Your task to perform on an android device: turn on improve location accuracy Image 0: 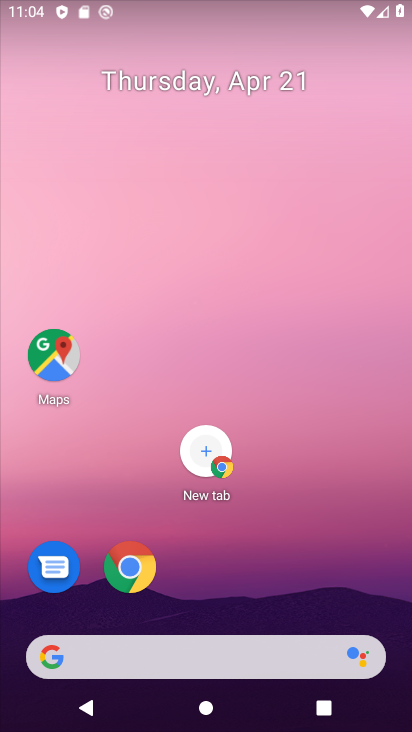
Step 0: drag from (214, 613) to (213, 64)
Your task to perform on an android device: turn on improve location accuracy Image 1: 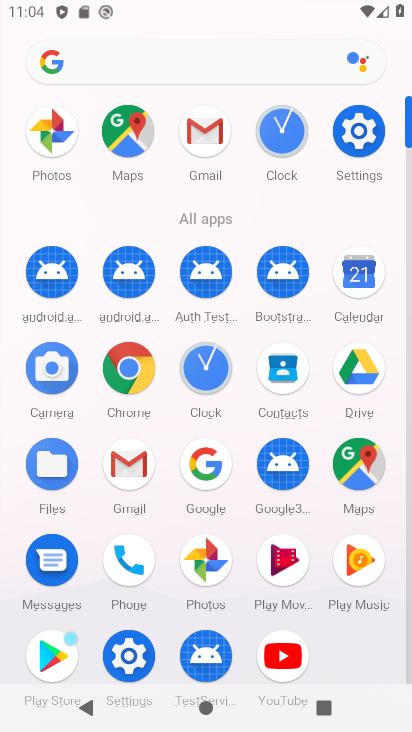
Step 1: click (350, 147)
Your task to perform on an android device: turn on improve location accuracy Image 2: 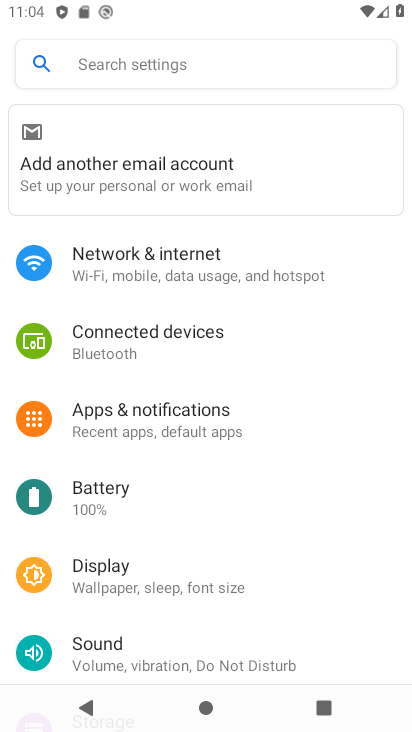
Step 2: drag from (77, 633) to (184, 229)
Your task to perform on an android device: turn on improve location accuracy Image 3: 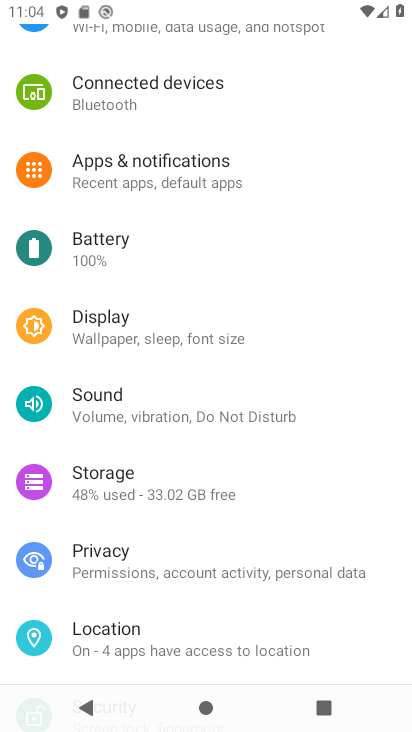
Step 3: click (38, 636)
Your task to perform on an android device: turn on improve location accuracy Image 4: 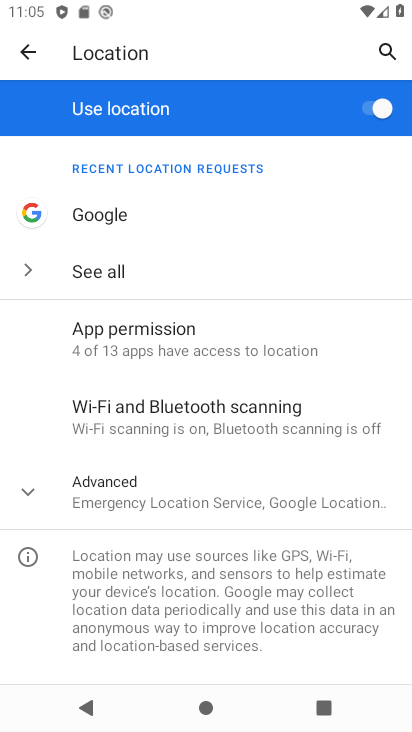
Step 4: click (272, 496)
Your task to perform on an android device: turn on improve location accuracy Image 5: 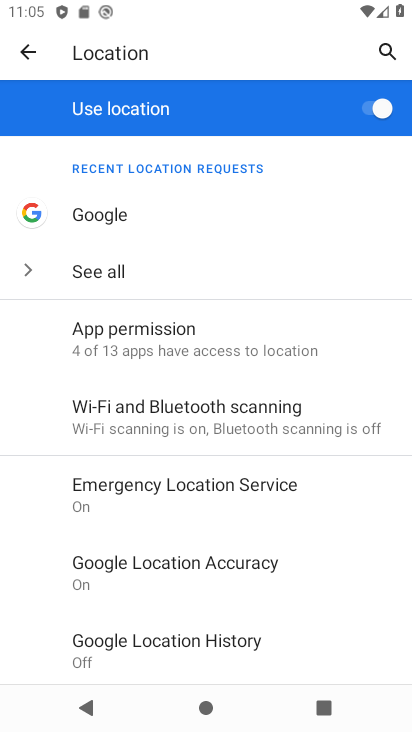
Step 5: click (140, 570)
Your task to perform on an android device: turn on improve location accuracy Image 6: 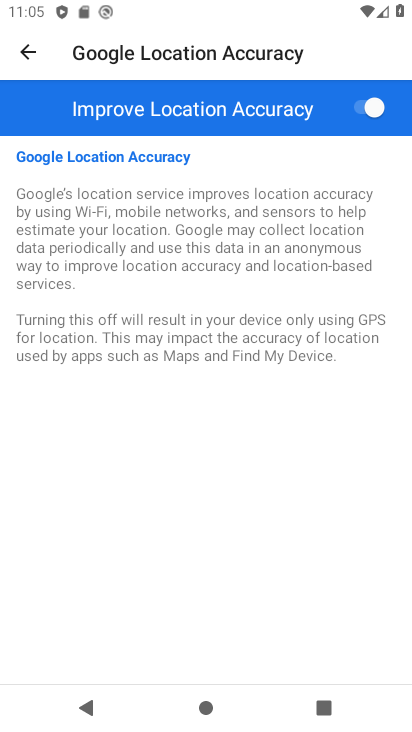
Step 6: task complete